Your task to perform on an android device: Play the last video I watched on Youtube Image 0: 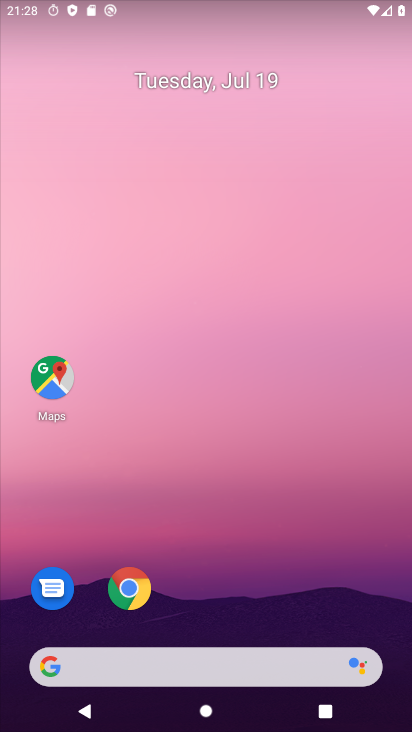
Step 0: press home button
Your task to perform on an android device: Play the last video I watched on Youtube Image 1: 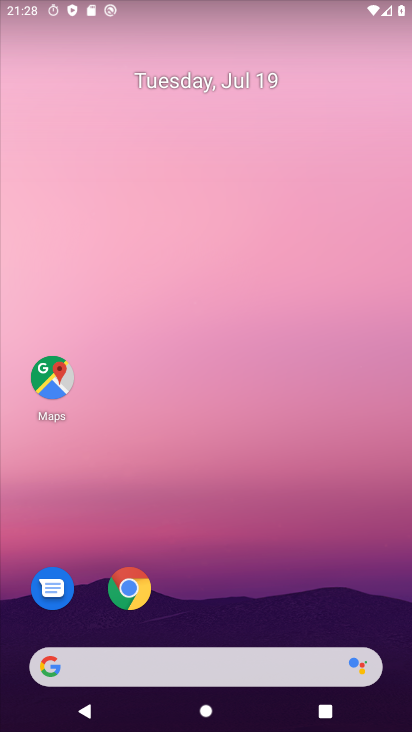
Step 1: drag from (213, 633) to (219, 10)
Your task to perform on an android device: Play the last video I watched on Youtube Image 2: 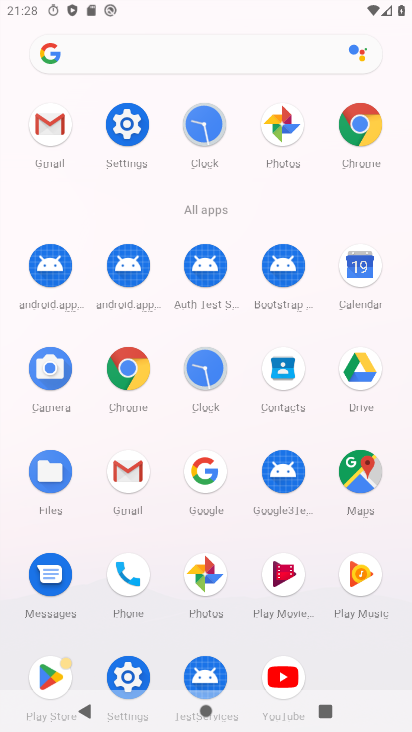
Step 2: drag from (323, 657) to (351, 207)
Your task to perform on an android device: Play the last video I watched on Youtube Image 3: 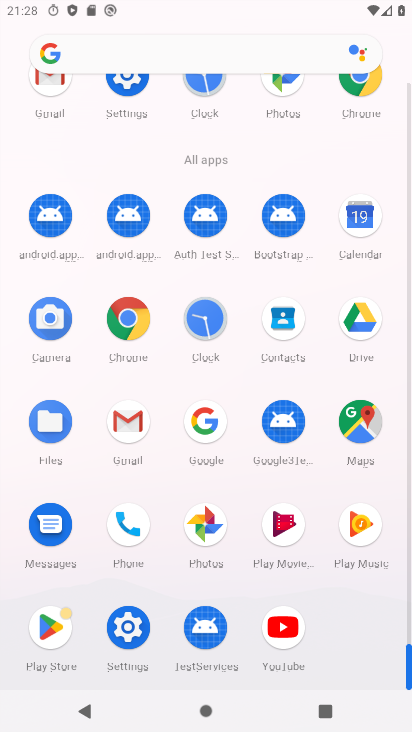
Step 3: click (280, 617)
Your task to perform on an android device: Play the last video I watched on Youtube Image 4: 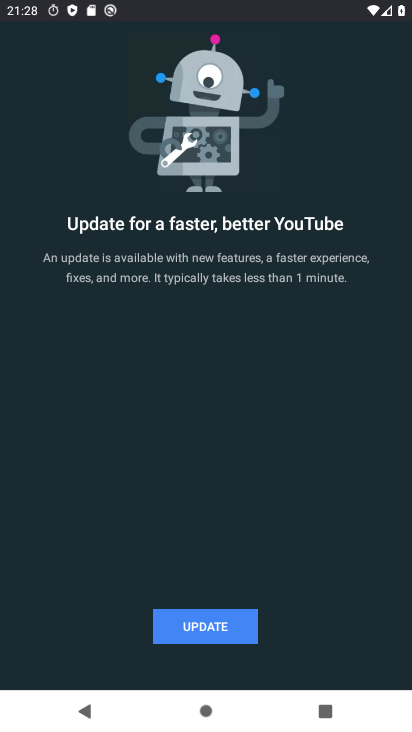
Step 4: click (201, 618)
Your task to perform on an android device: Play the last video I watched on Youtube Image 5: 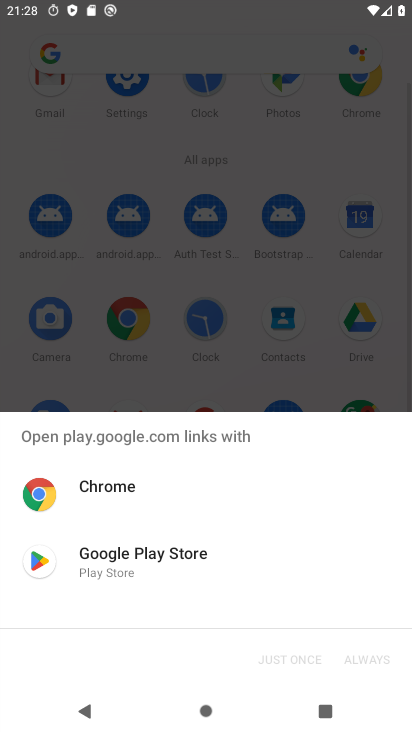
Step 5: click (138, 563)
Your task to perform on an android device: Play the last video I watched on Youtube Image 6: 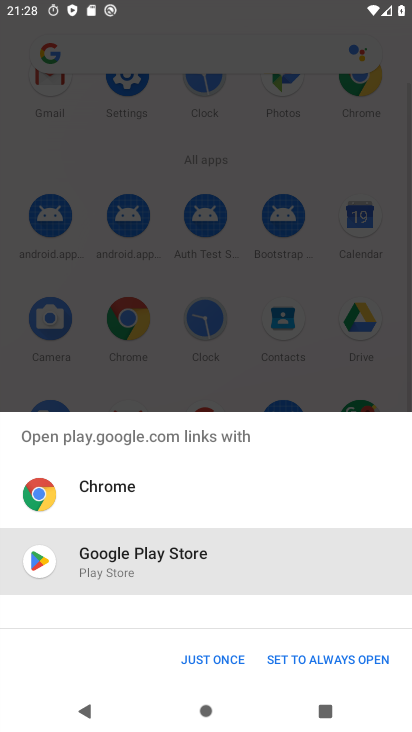
Step 6: click (217, 660)
Your task to perform on an android device: Play the last video I watched on Youtube Image 7: 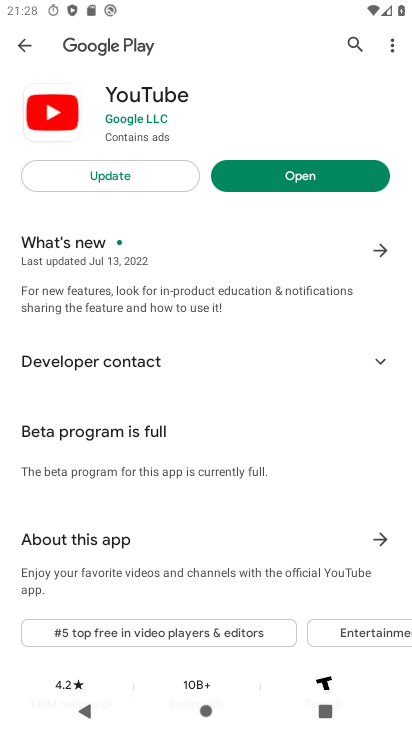
Step 7: click (110, 175)
Your task to perform on an android device: Play the last video I watched on Youtube Image 8: 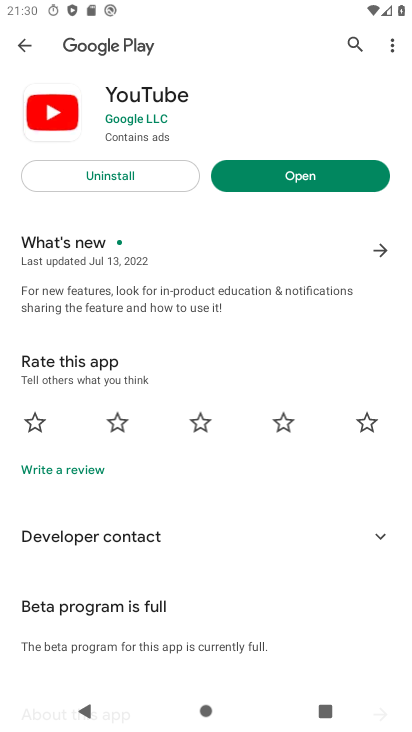
Step 8: click (296, 178)
Your task to perform on an android device: Play the last video I watched on Youtube Image 9: 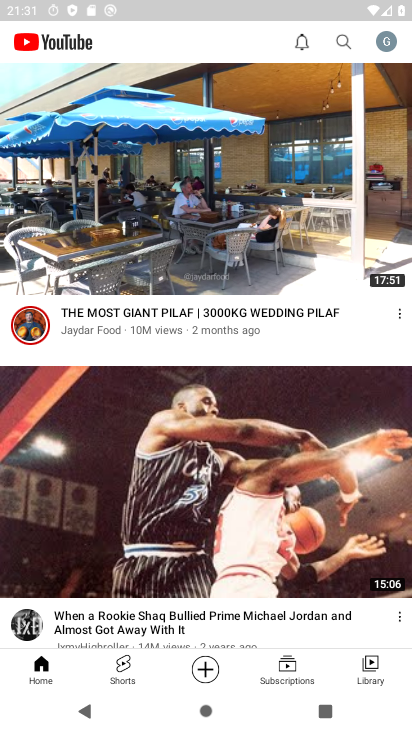
Step 9: drag from (208, 630) to (220, 134)
Your task to perform on an android device: Play the last video I watched on Youtube Image 10: 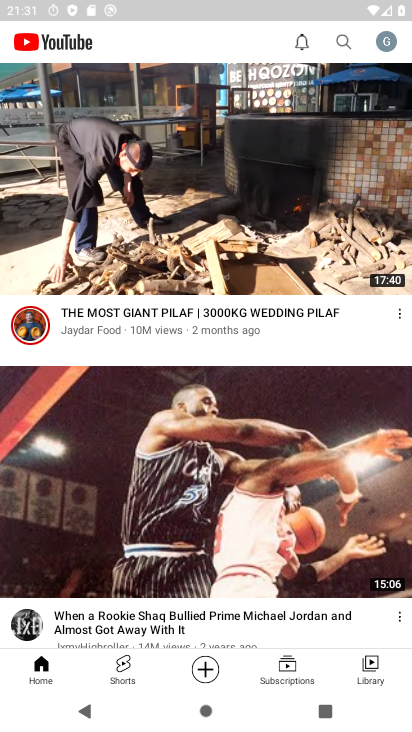
Step 10: click (367, 659)
Your task to perform on an android device: Play the last video I watched on Youtube Image 11: 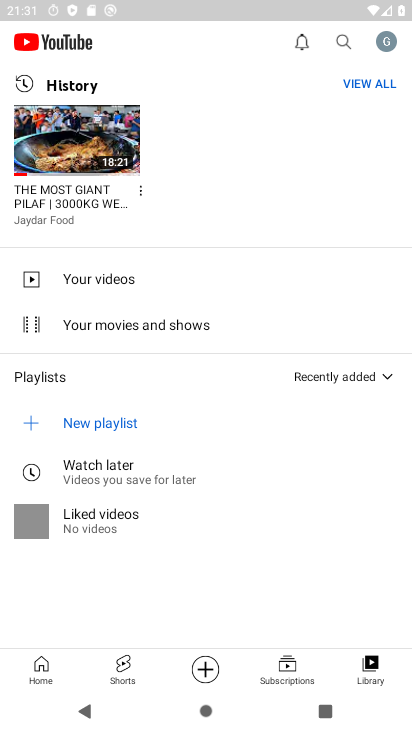
Step 11: click (62, 142)
Your task to perform on an android device: Play the last video I watched on Youtube Image 12: 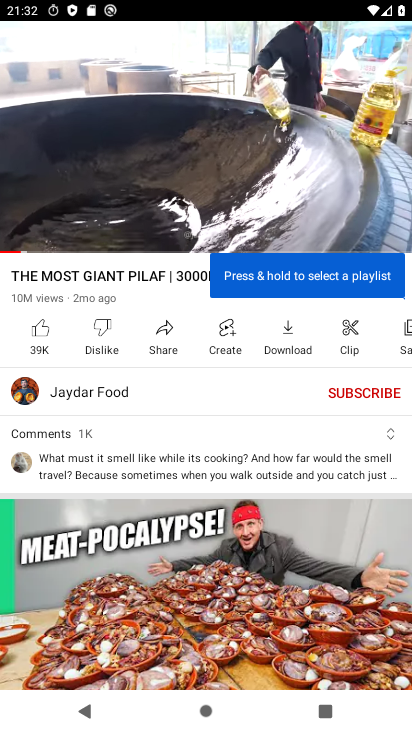
Step 12: task complete